Your task to perform on an android device: Show me productivity apps on the Play Store Image 0: 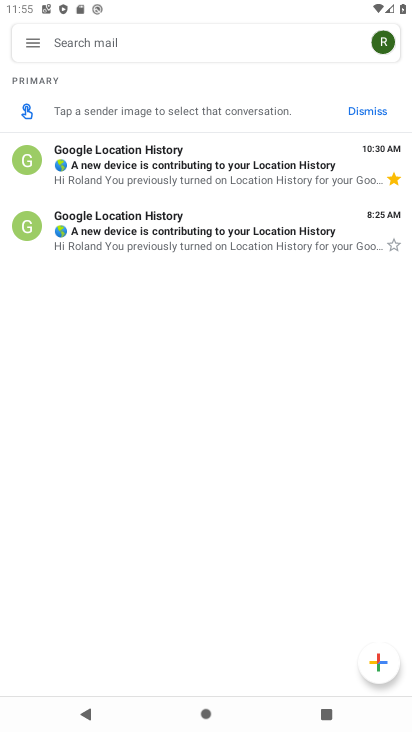
Step 0: press home button
Your task to perform on an android device: Show me productivity apps on the Play Store Image 1: 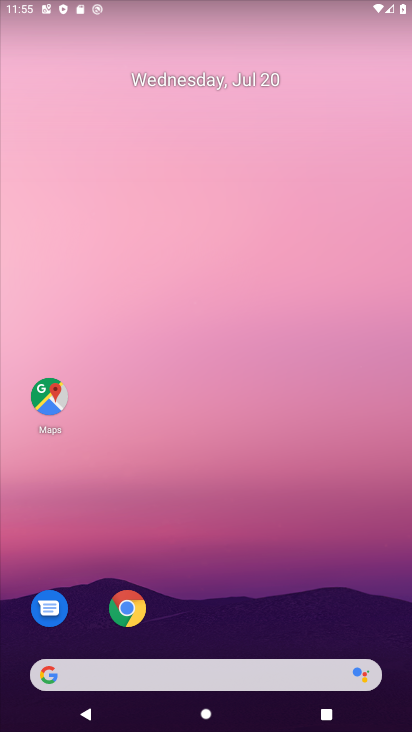
Step 1: drag from (403, 648) to (192, 71)
Your task to perform on an android device: Show me productivity apps on the Play Store Image 2: 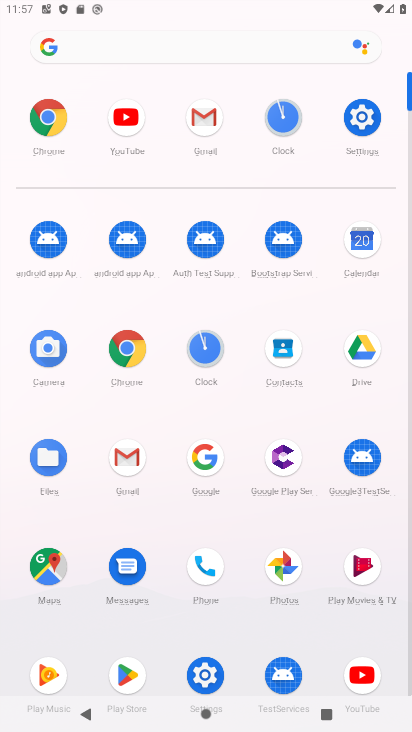
Step 2: click (121, 662)
Your task to perform on an android device: Show me productivity apps on the Play Store Image 3: 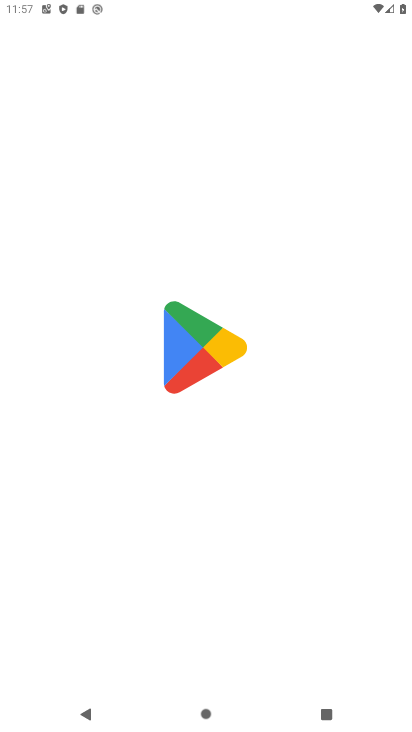
Step 3: task complete